Your task to perform on an android device: Go to wifi settings Image 0: 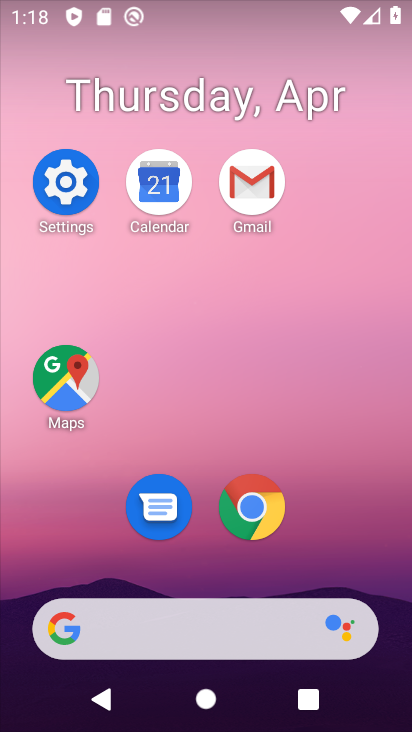
Step 0: click (62, 173)
Your task to perform on an android device: Go to wifi settings Image 1: 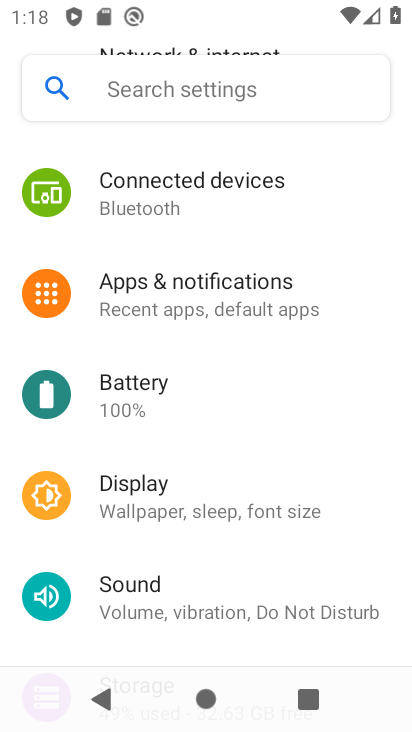
Step 1: drag from (185, 210) to (143, 608)
Your task to perform on an android device: Go to wifi settings Image 2: 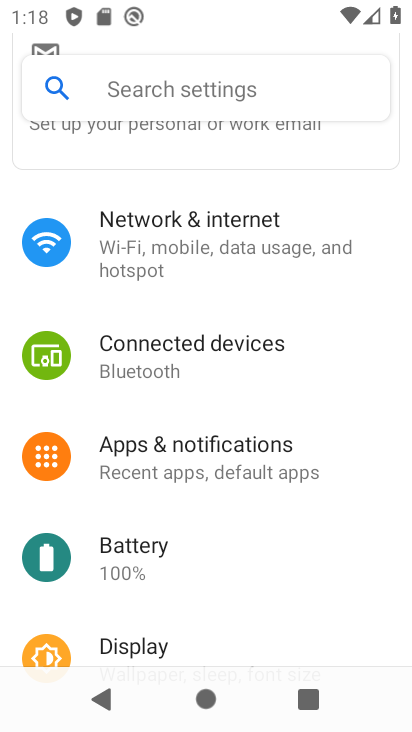
Step 2: click (286, 254)
Your task to perform on an android device: Go to wifi settings Image 3: 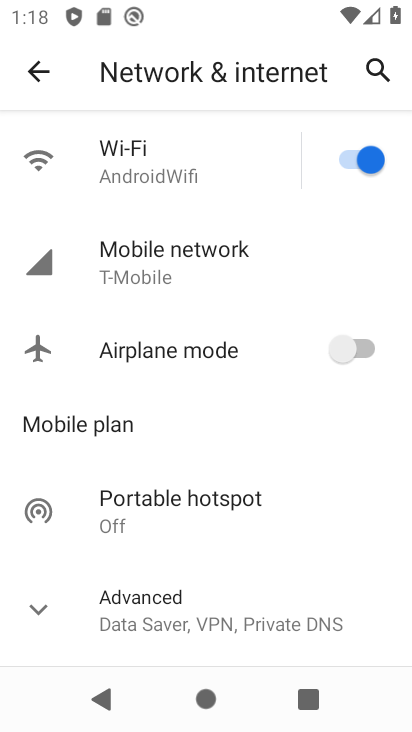
Step 3: click (145, 152)
Your task to perform on an android device: Go to wifi settings Image 4: 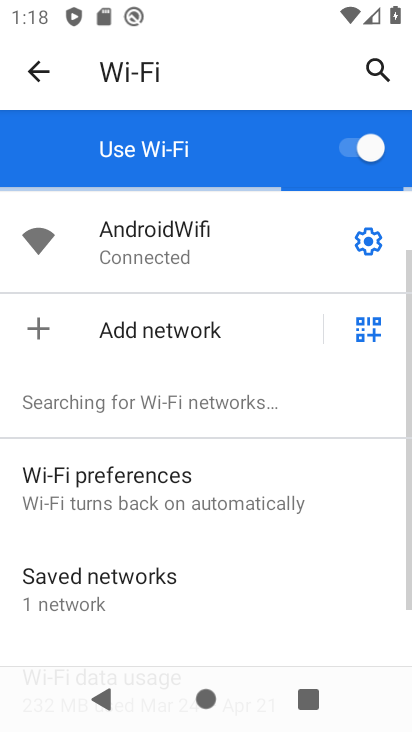
Step 4: click (366, 231)
Your task to perform on an android device: Go to wifi settings Image 5: 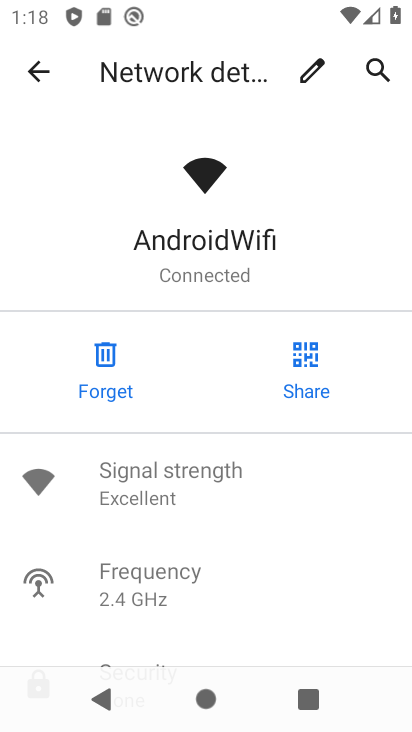
Step 5: task complete